Your task to perform on an android device: toggle location history Image 0: 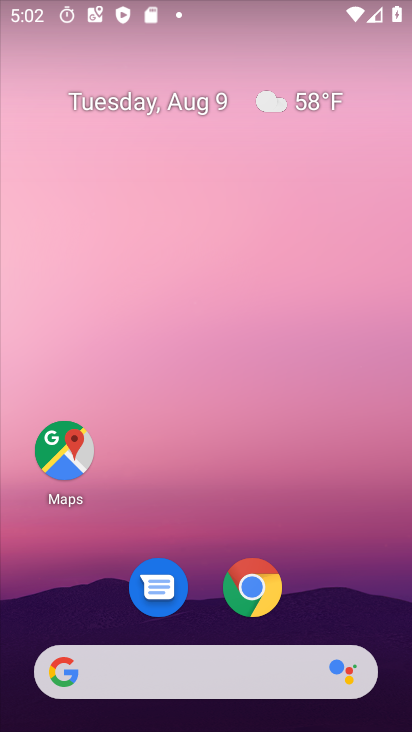
Step 0: drag from (230, 661) to (265, 58)
Your task to perform on an android device: toggle location history Image 1: 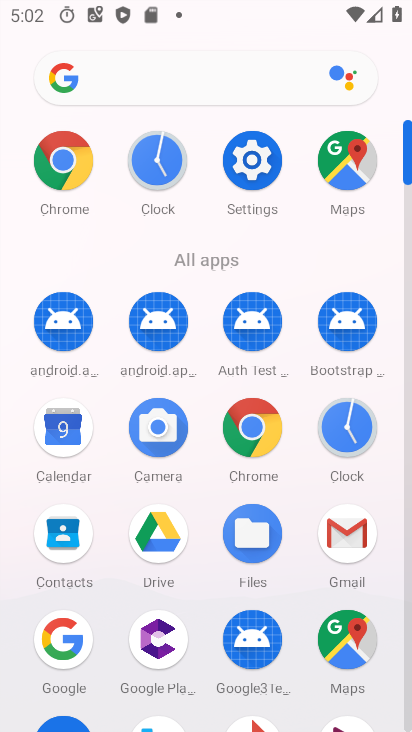
Step 1: click (267, 172)
Your task to perform on an android device: toggle location history Image 2: 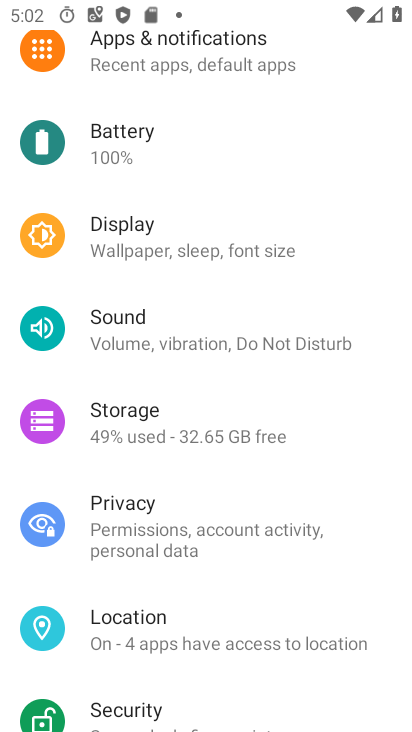
Step 2: click (164, 630)
Your task to perform on an android device: toggle location history Image 3: 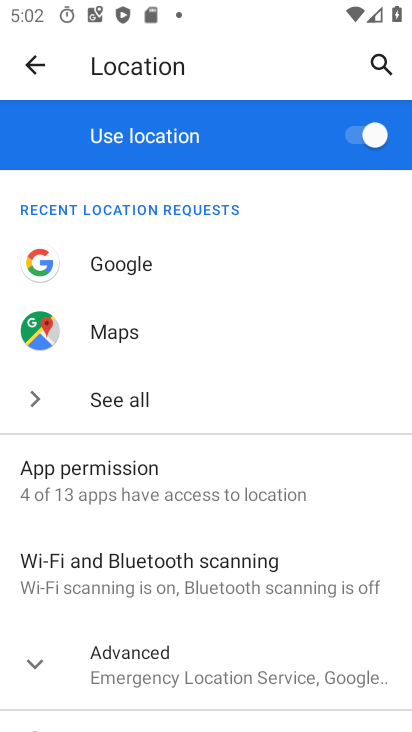
Step 3: click (162, 641)
Your task to perform on an android device: toggle location history Image 4: 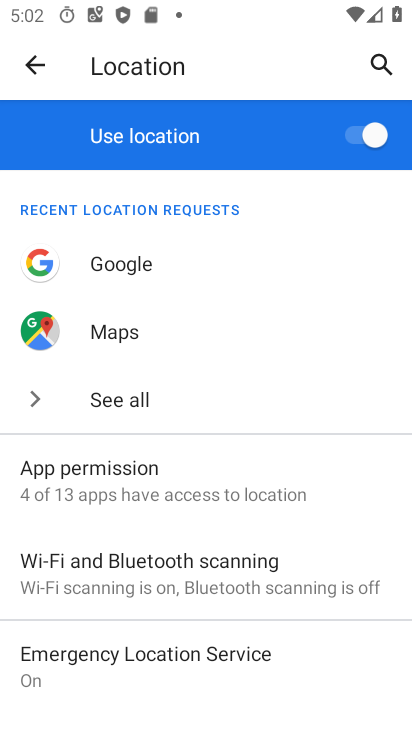
Step 4: drag from (166, 645) to (129, 51)
Your task to perform on an android device: toggle location history Image 5: 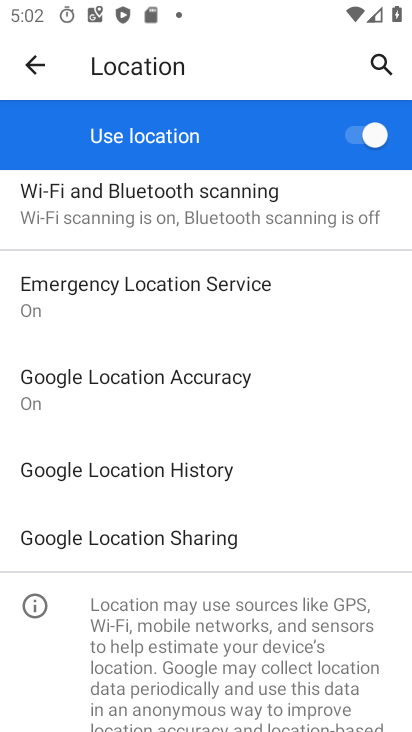
Step 5: click (134, 481)
Your task to perform on an android device: toggle location history Image 6: 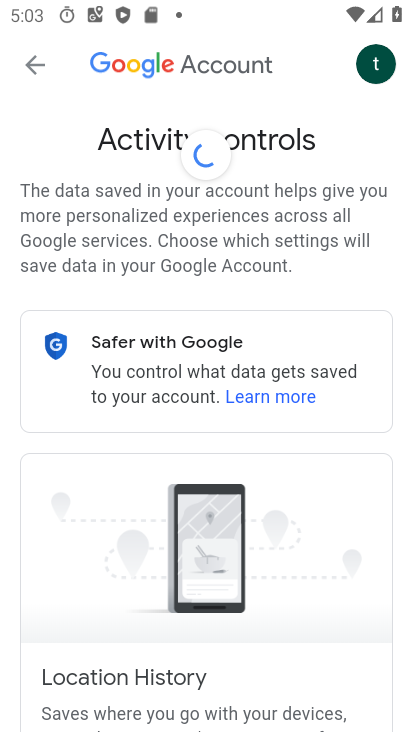
Step 6: task complete